Your task to perform on an android device: open a new tab in the chrome app Image 0: 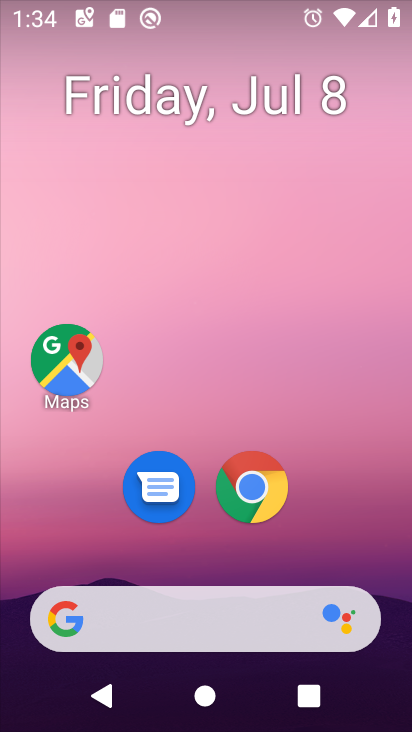
Step 0: drag from (374, 544) to (355, 148)
Your task to perform on an android device: open a new tab in the chrome app Image 1: 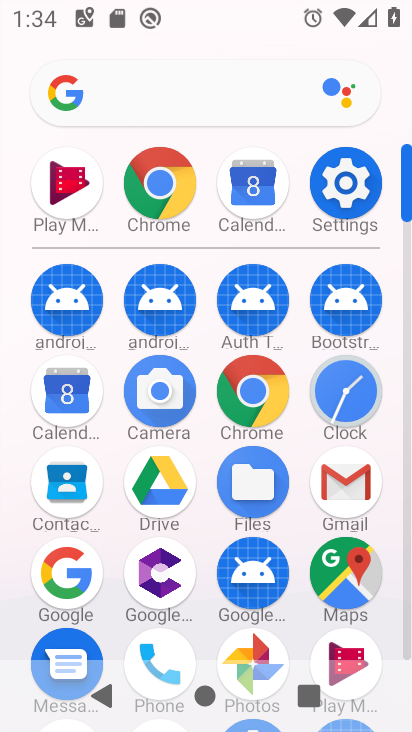
Step 1: click (269, 389)
Your task to perform on an android device: open a new tab in the chrome app Image 2: 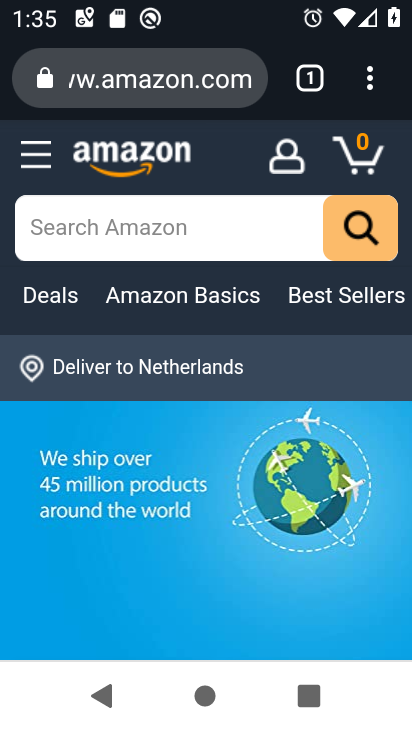
Step 2: click (369, 86)
Your task to perform on an android device: open a new tab in the chrome app Image 3: 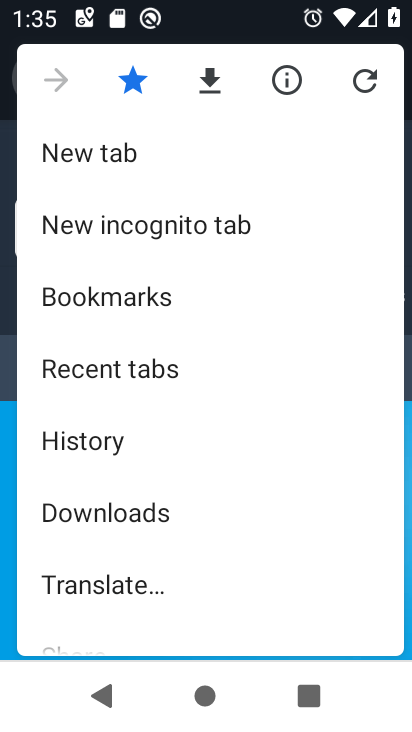
Step 3: click (143, 160)
Your task to perform on an android device: open a new tab in the chrome app Image 4: 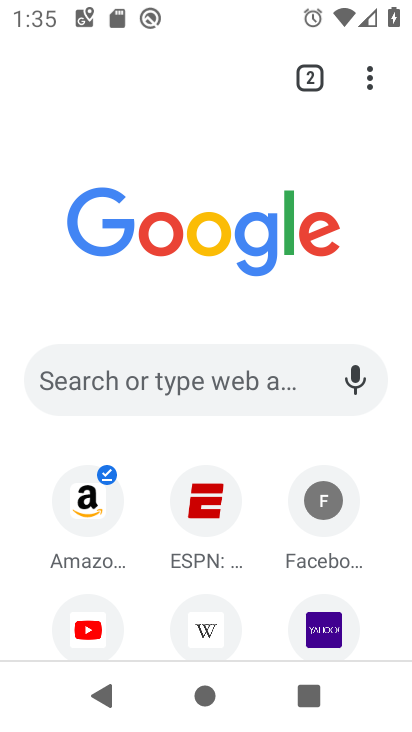
Step 4: task complete